Your task to perform on an android device: turn off sleep mode Image 0: 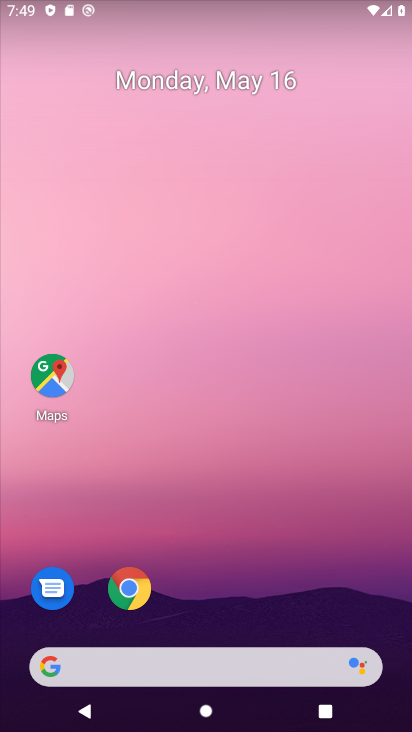
Step 0: drag from (335, 597) to (368, 125)
Your task to perform on an android device: turn off sleep mode Image 1: 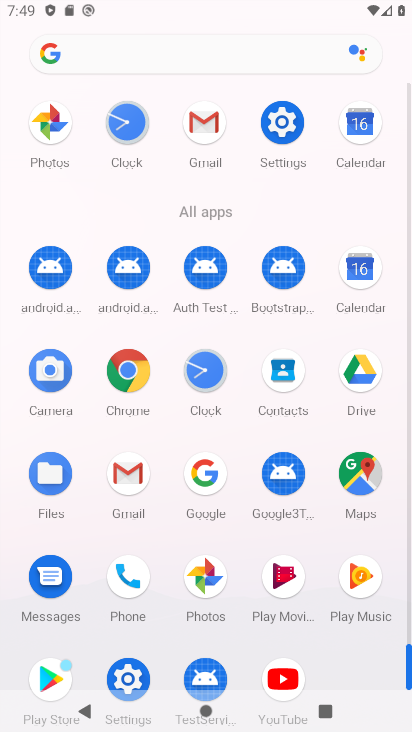
Step 1: drag from (393, 634) to (392, 459)
Your task to perform on an android device: turn off sleep mode Image 2: 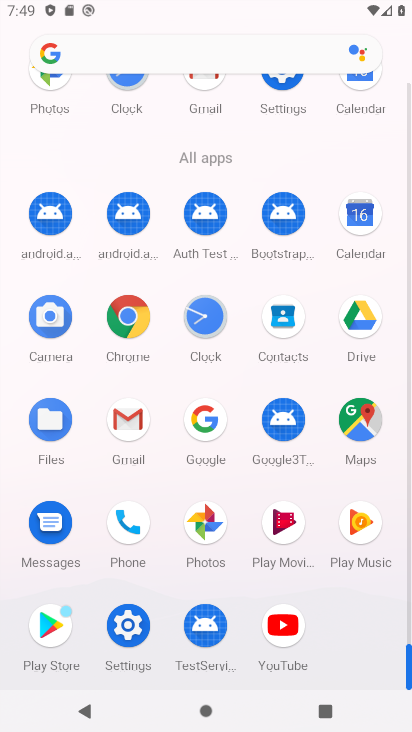
Step 2: click (112, 631)
Your task to perform on an android device: turn off sleep mode Image 3: 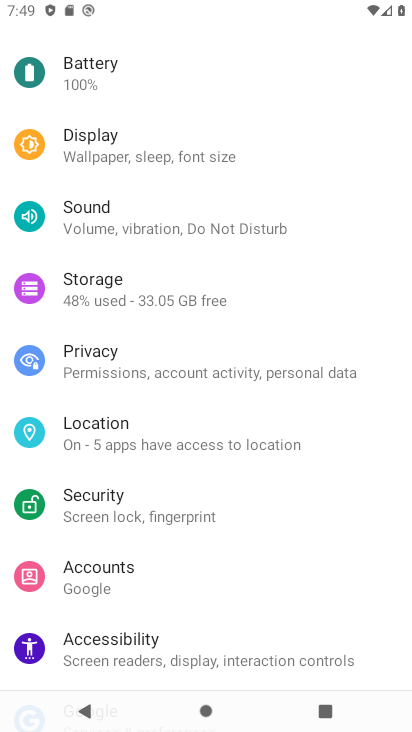
Step 3: drag from (382, 293) to (350, 490)
Your task to perform on an android device: turn off sleep mode Image 4: 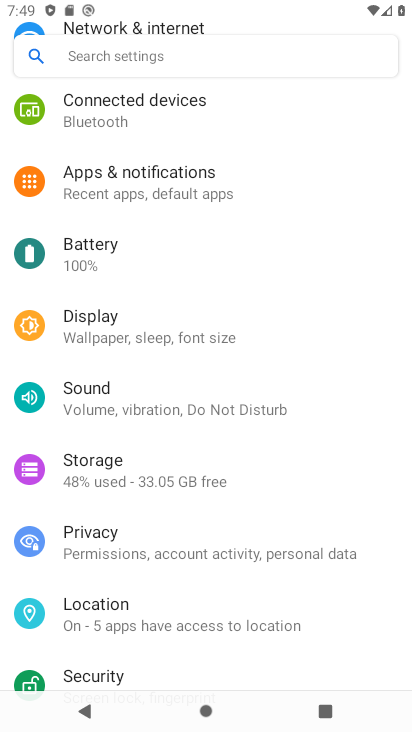
Step 4: drag from (348, 270) to (340, 480)
Your task to perform on an android device: turn off sleep mode Image 5: 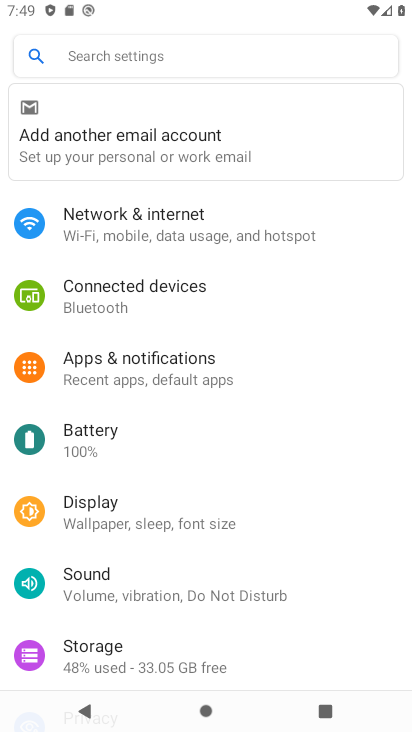
Step 5: drag from (323, 279) to (328, 468)
Your task to perform on an android device: turn off sleep mode Image 6: 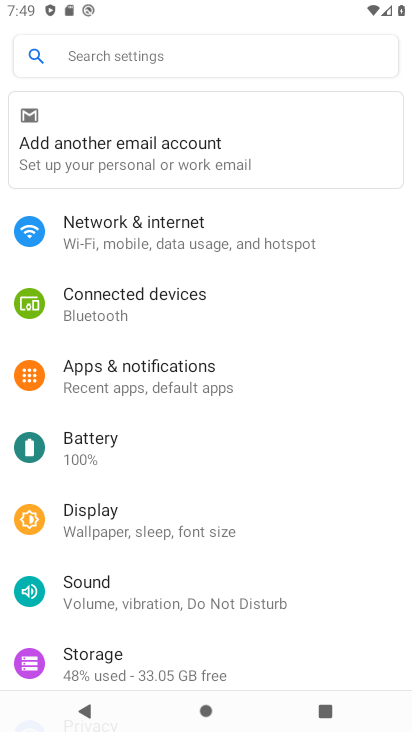
Step 6: drag from (359, 613) to (364, 462)
Your task to perform on an android device: turn off sleep mode Image 7: 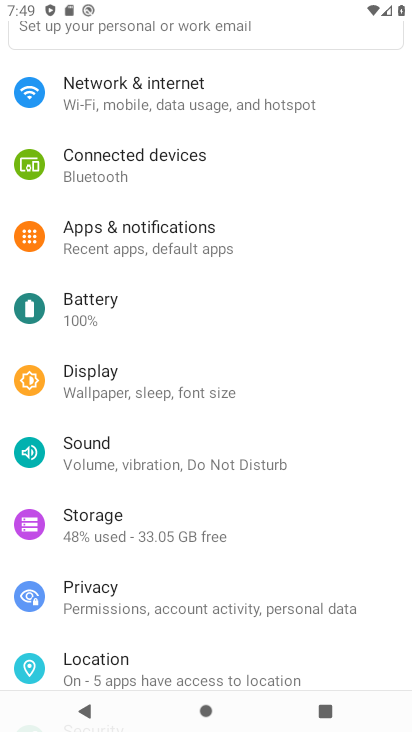
Step 7: drag from (356, 639) to (356, 478)
Your task to perform on an android device: turn off sleep mode Image 8: 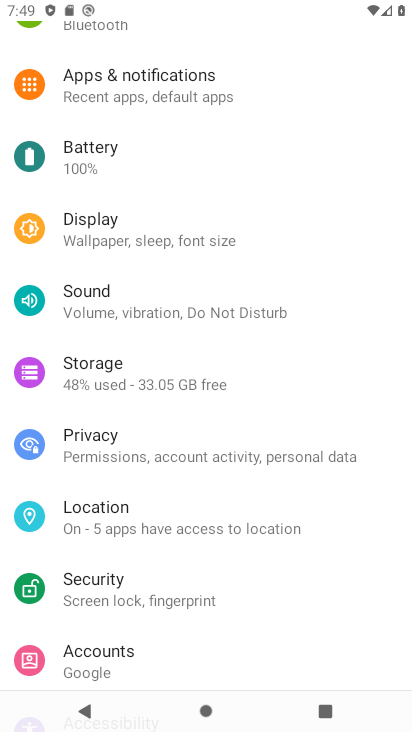
Step 8: drag from (342, 613) to (348, 440)
Your task to perform on an android device: turn off sleep mode Image 9: 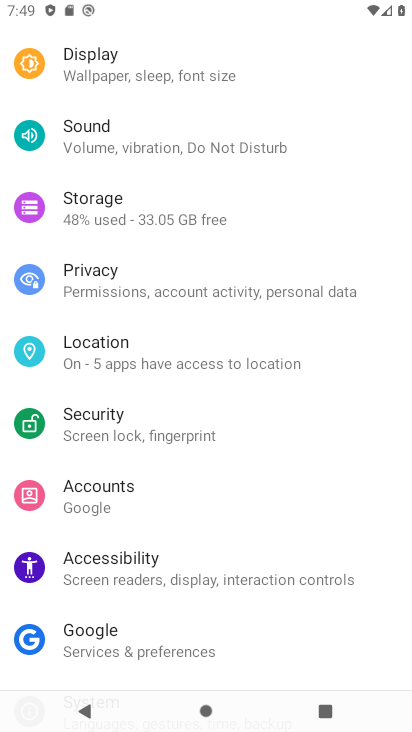
Step 9: drag from (324, 626) to (332, 493)
Your task to perform on an android device: turn off sleep mode Image 10: 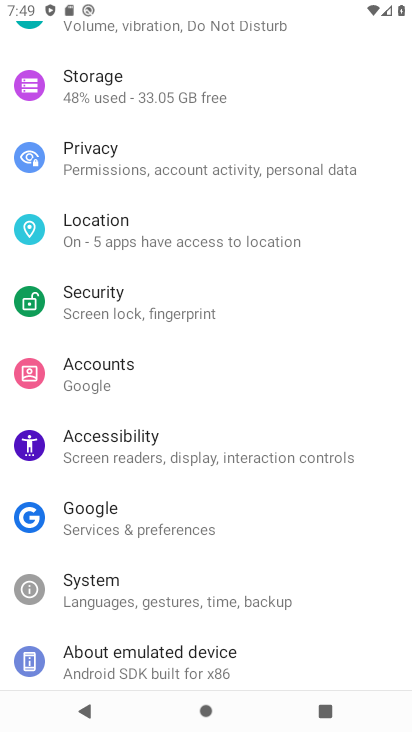
Step 10: drag from (316, 648) to (319, 501)
Your task to perform on an android device: turn off sleep mode Image 11: 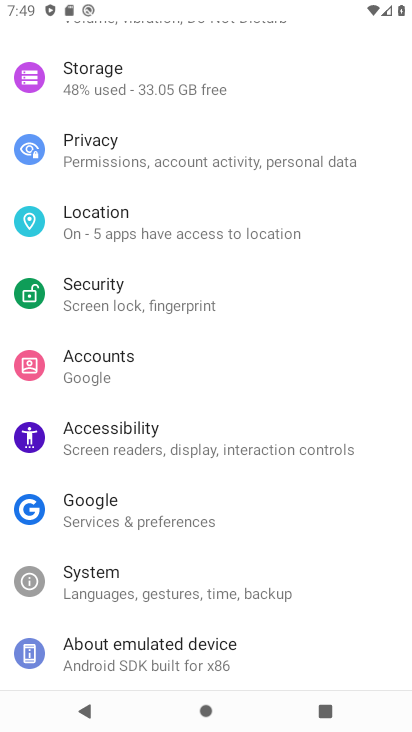
Step 11: drag from (338, 329) to (340, 457)
Your task to perform on an android device: turn off sleep mode Image 12: 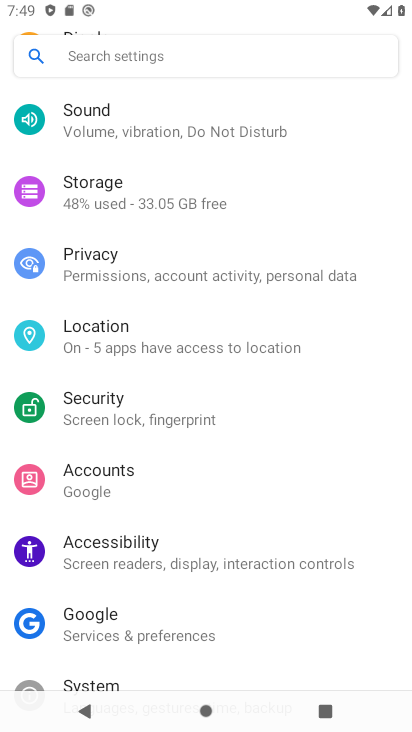
Step 12: drag from (356, 310) to (357, 429)
Your task to perform on an android device: turn off sleep mode Image 13: 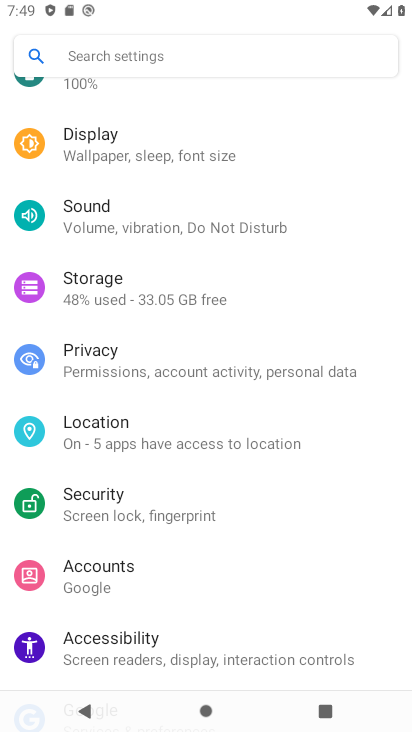
Step 13: drag from (354, 279) to (339, 431)
Your task to perform on an android device: turn off sleep mode Image 14: 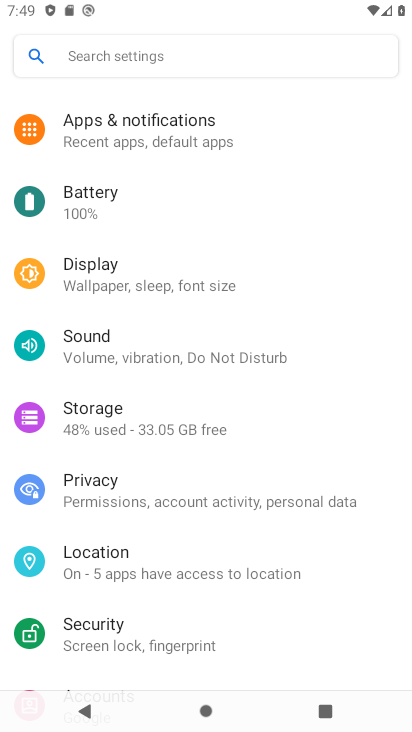
Step 14: drag from (331, 292) to (329, 378)
Your task to perform on an android device: turn off sleep mode Image 15: 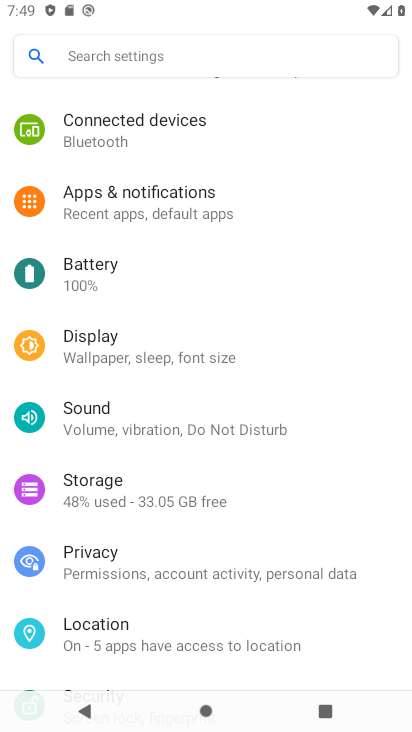
Step 15: click (147, 327)
Your task to perform on an android device: turn off sleep mode Image 16: 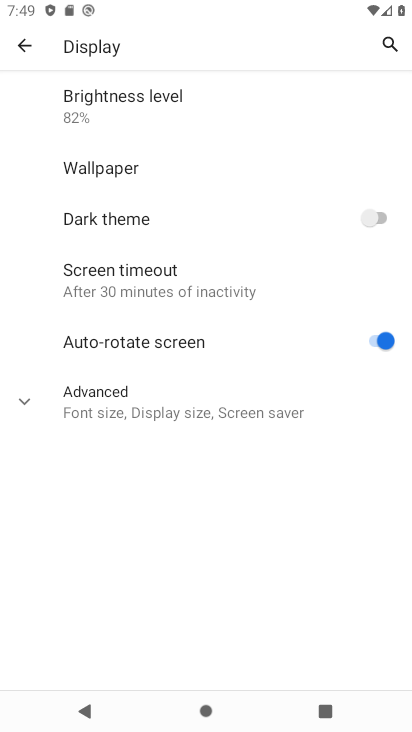
Step 16: click (202, 416)
Your task to perform on an android device: turn off sleep mode Image 17: 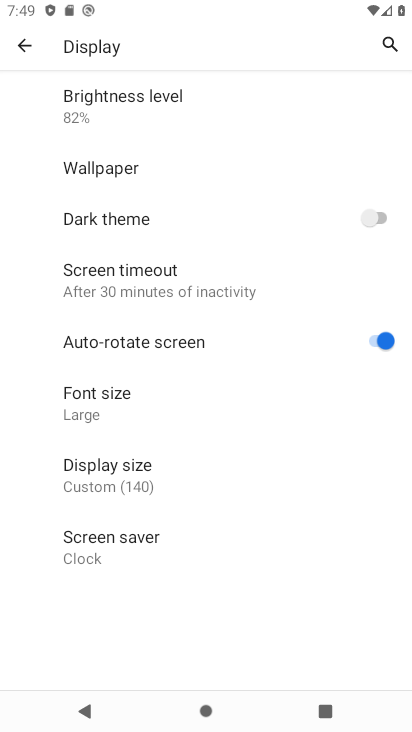
Step 17: task complete